Your task to perform on an android device: View the shopping cart on amazon.com. Search for usb-c to usb-b on amazon.com, select the first entry, and add it to the cart. Image 0: 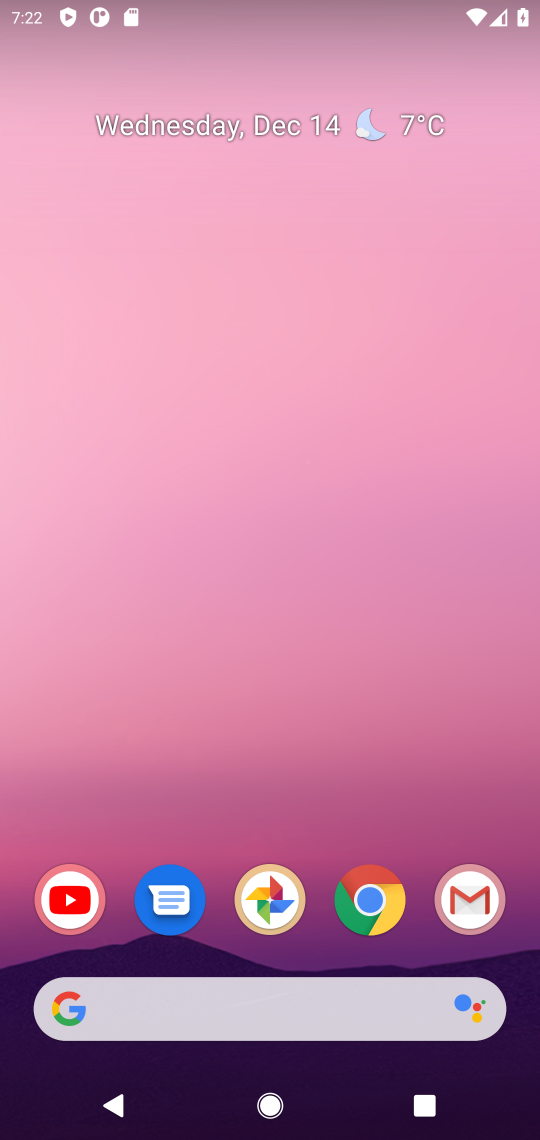
Step 0: click (293, 998)
Your task to perform on an android device: View the shopping cart on amazon.com. Search for usb-c to usb-b on amazon.com, select the first entry, and add it to the cart. Image 1: 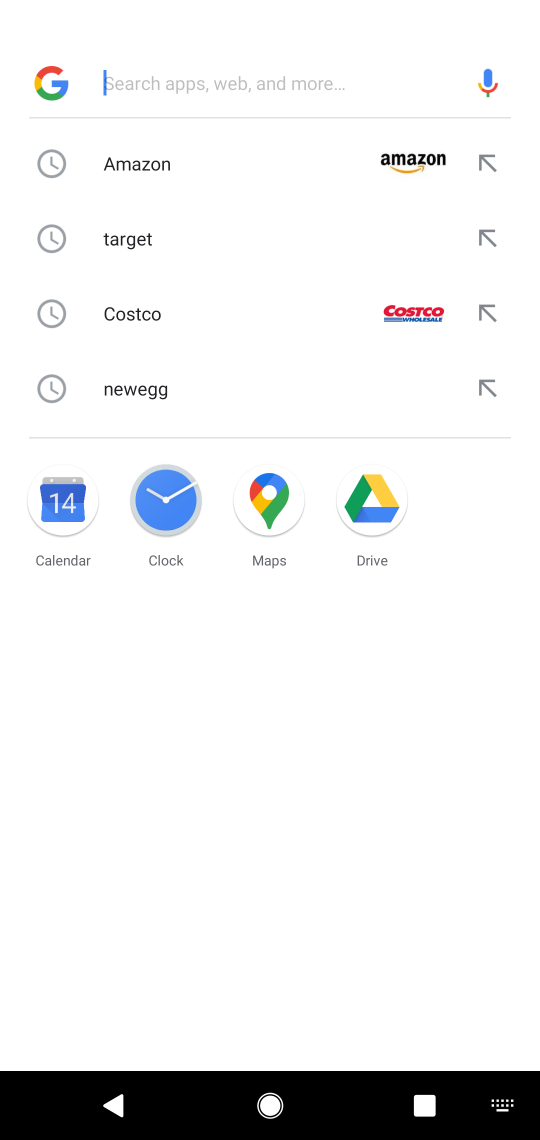
Step 1: click (170, 161)
Your task to perform on an android device: View the shopping cart on amazon.com. Search for usb-c to usb-b on amazon.com, select the first entry, and add it to the cart. Image 2: 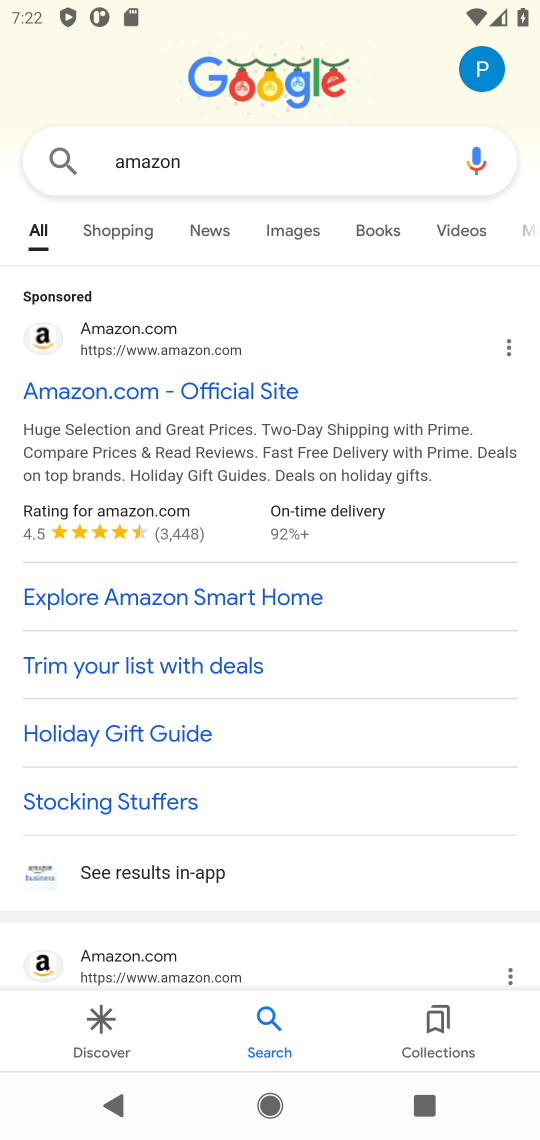
Step 2: click (118, 374)
Your task to perform on an android device: View the shopping cart on amazon.com. Search for usb-c to usb-b on amazon.com, select the first entry, and add it to the cart. Image 3: 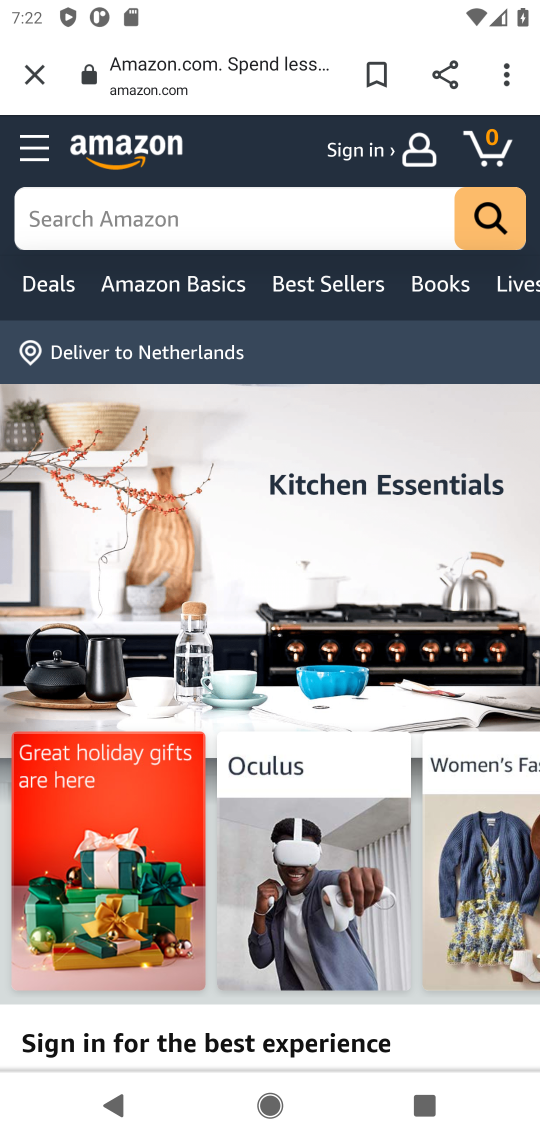
Step 3: click (197, 212)
Your task to perform on an android device: View the shopping cart on amazon.com. Search for usb-c to usb-b on amazon.com, select the first entry, and add it to the cart. Image 4: 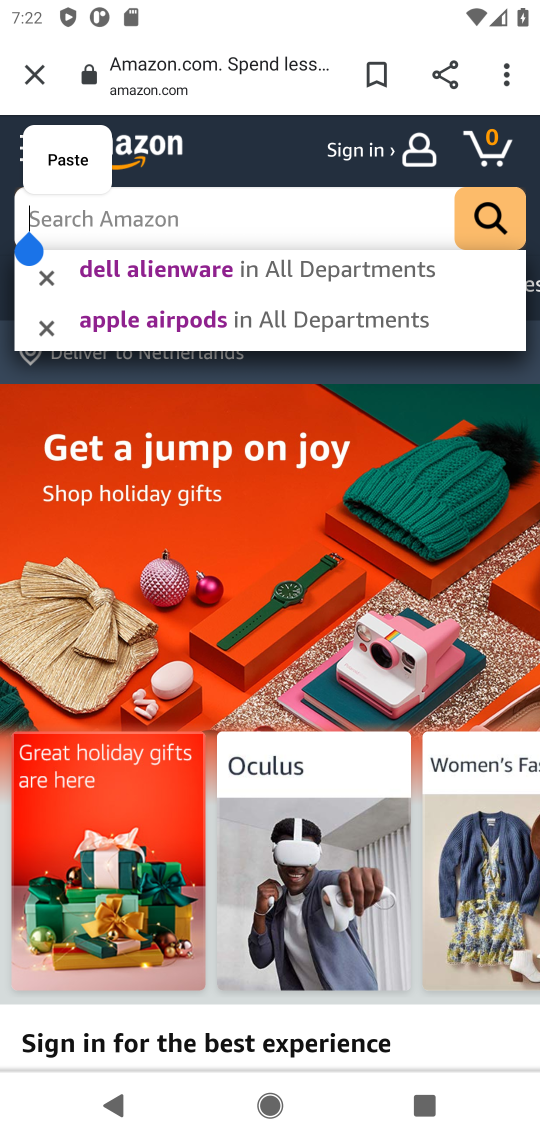
Step 4: type "usb-c to usb-b"
Your task to perform on an android device: View the shopping cart on amazon.com. Search for usb-c to usb-b on amazon.com, select the first entry, and add it to the cart. Image 5: 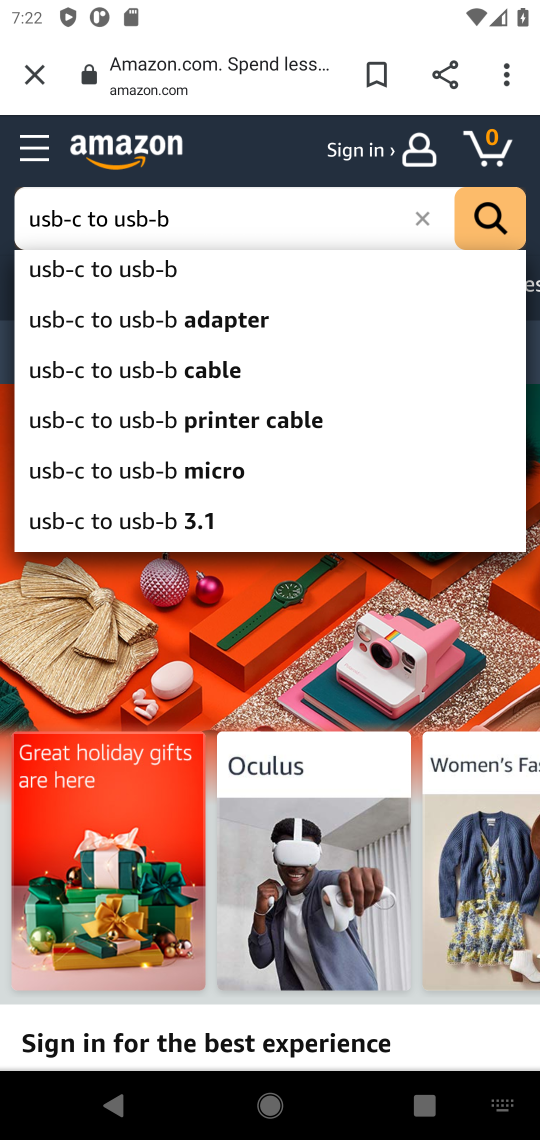
Step 5: click (496, 191)
Your task to perform on an android device: View the shopping cart on amazon.com. Search for usb-c to usb-b on amazon.com, select the first entry, and add it to the cart. Image 6: 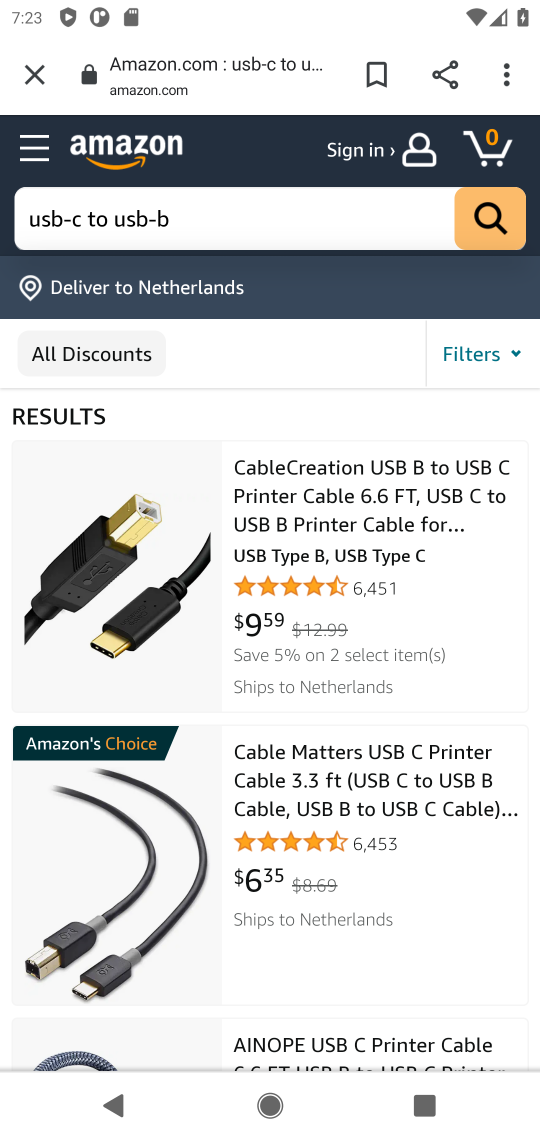
Step 6: click (314, 502)
Your task to perform on an android device: View the shopping cart on amazon.com. Search for usb-c to usb-b on amazon.com, select the first entry, and add it to the cart. Image 7: 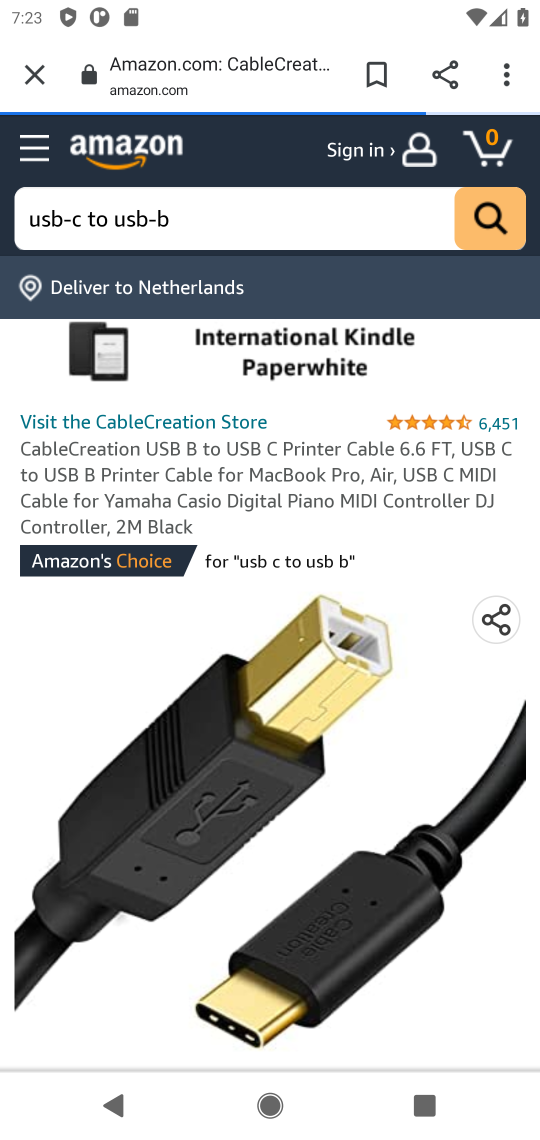
Step 7: drag from (308, 716) to (361, 371)
Your task to perform on an android device: View the shopping cart on amazon.com. Search for usb-c to usb-b on amazon.com, select the first entry, and add it to the cart. Image 8: 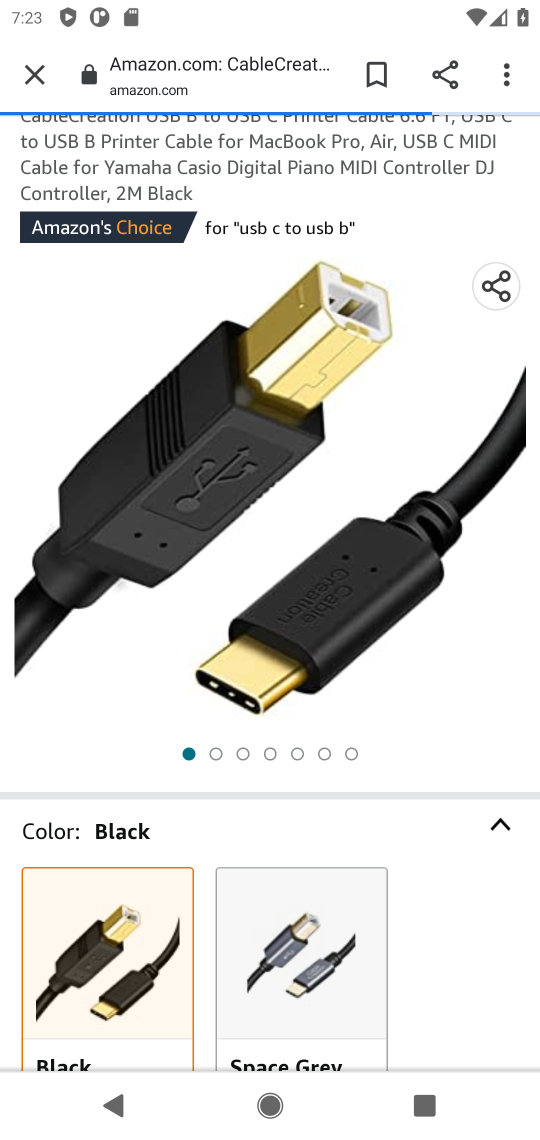
Step 8: drag from (325, 619) to (335, 422)
Your task to perform on an android device: View the shopping cart on amazon.com. Search for usb-c to usb-b on amazon.com, select the first entry, and add it to the cart. Image 9: 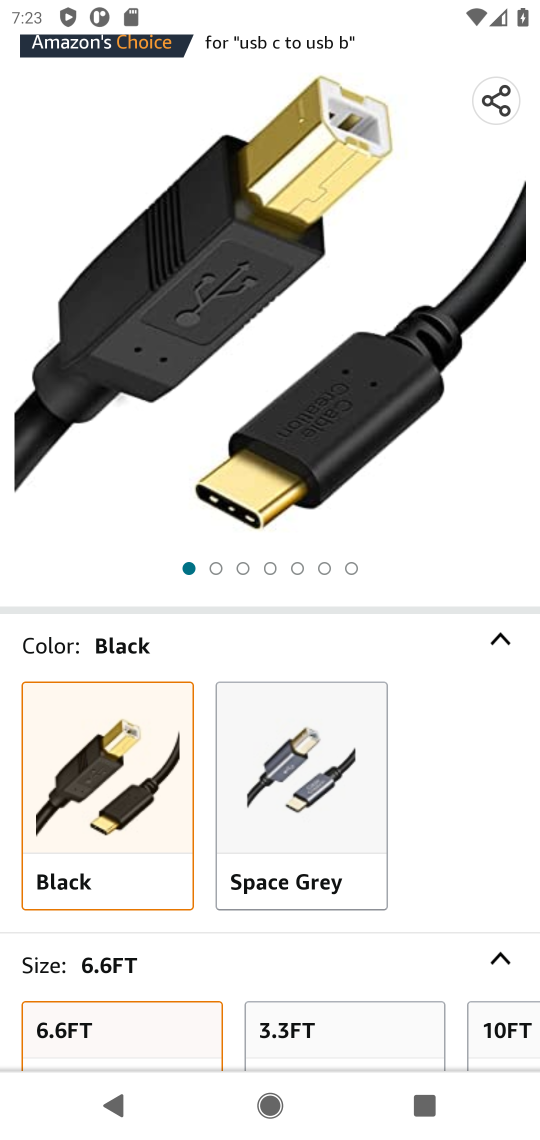
Step 9: drag from (272, 934) to (269, 582)
Your task to perform on an android device: View the shopping cart on amazon.com. Search for usb-c to usb-b on amazon.com, select the first entry, and add it to the cart. Image 10: 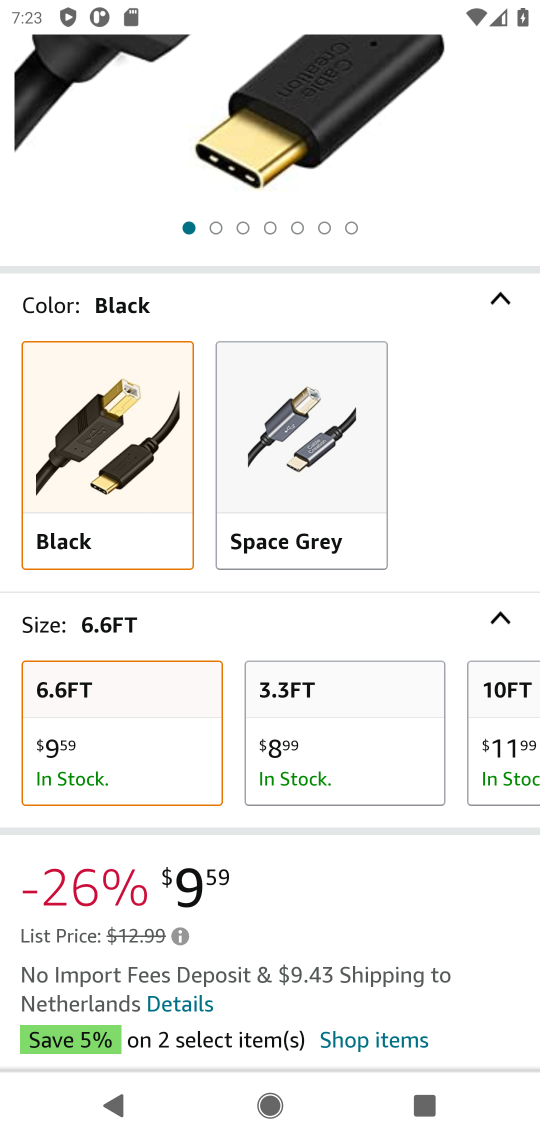
Step 10: drag from (246, 897) to (299, 444)
Your task to perform on an android device: View the shopping cart on amazon.com. Search for usb-c to usb-b on amazon.com, select the first entry, and add it to the cart. Image 11: 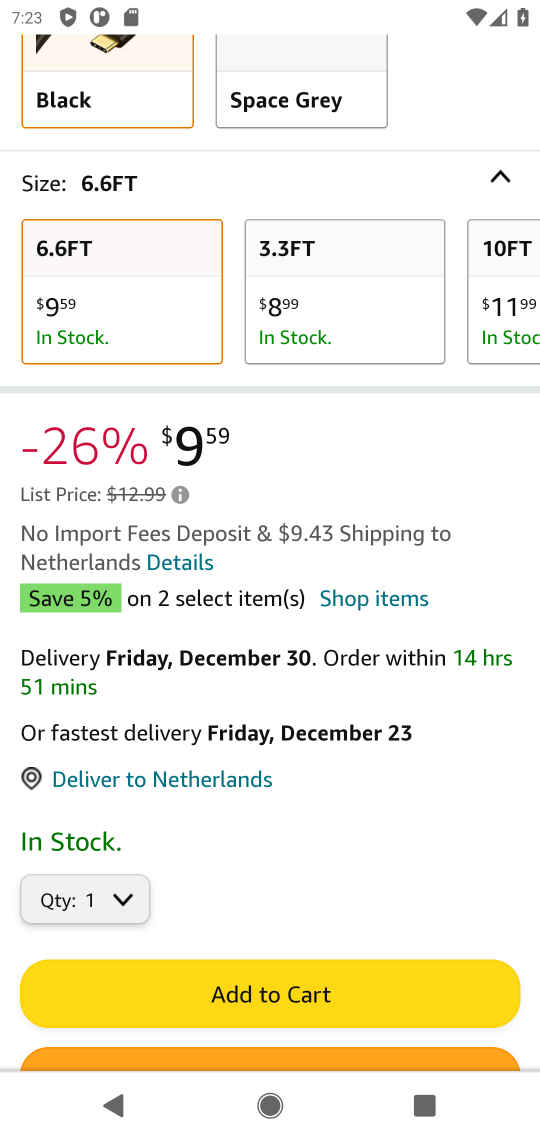
Step 11: click (250, 1001)
Your task to perform on an android device: View the shopping cart on amazon.com. Search for usb-c to usb-b on amazon.com, select the first entry, and add it to the cart. Image 12: 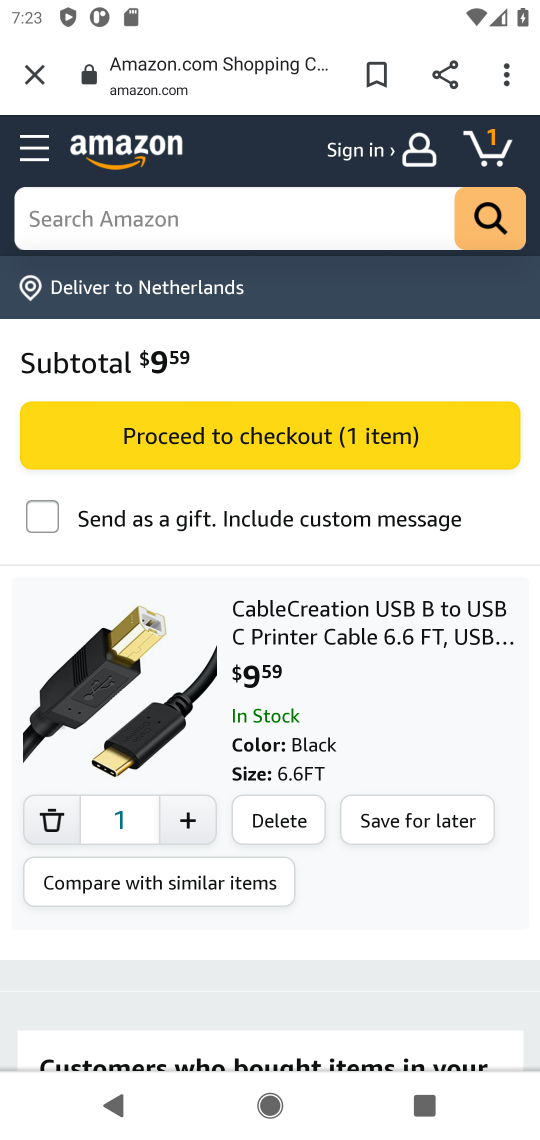
Step 12: task complete